Your task to perform on an android device: visit the assistant section in the google photos Image 0: 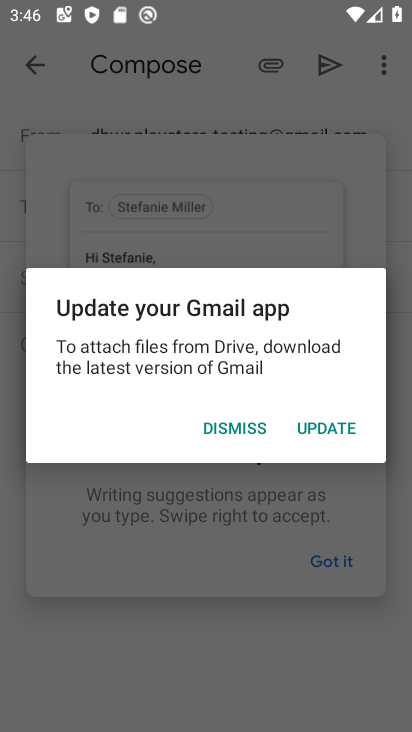
Step 0: press home button
Your task to perform on an android device: visit the assistant section in the google photos Image 1: 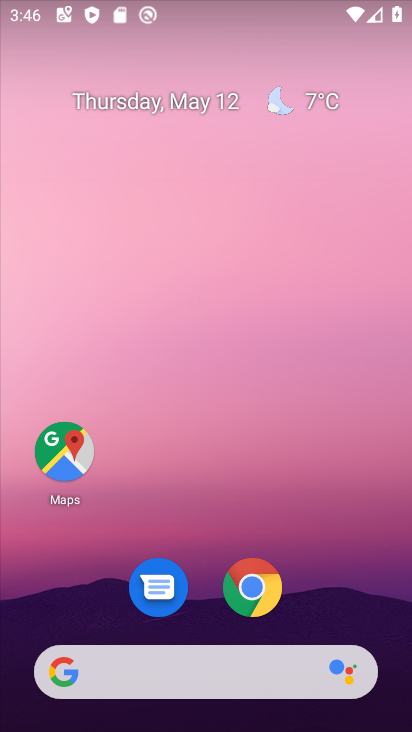
Step 1: drag from (241, 525) to (263, 177)
Your task to perform on an android device: visit the assistant section in the google photos Image 2: 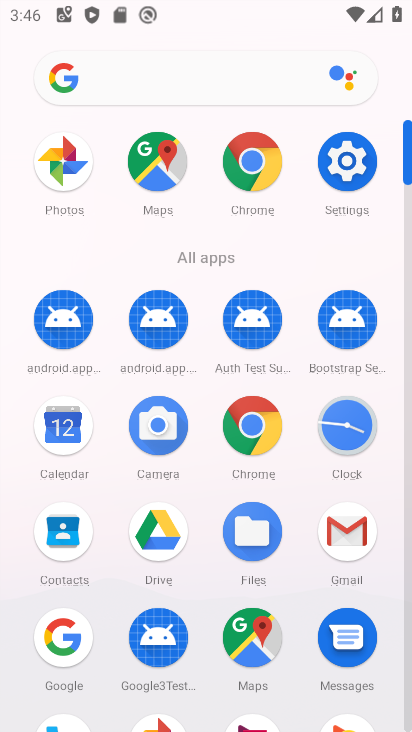
Step 2: click (67, 179)
Your task to perform on an android device: visit the assistant section in the google photos Image 3: 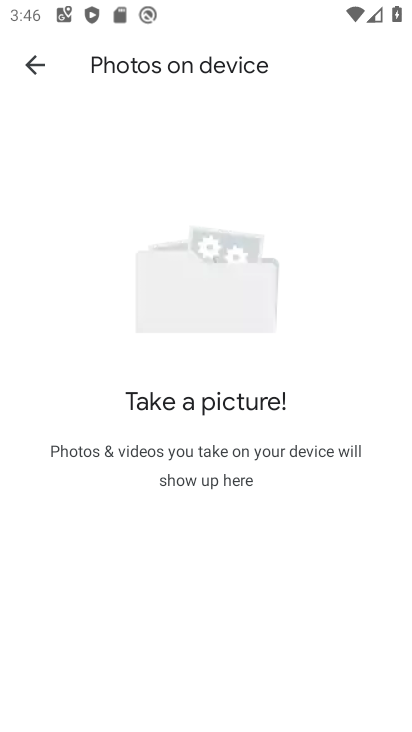
Step 3: press back button
Your task to perform on an android device: visit the assistant section in the google photos Image 4: 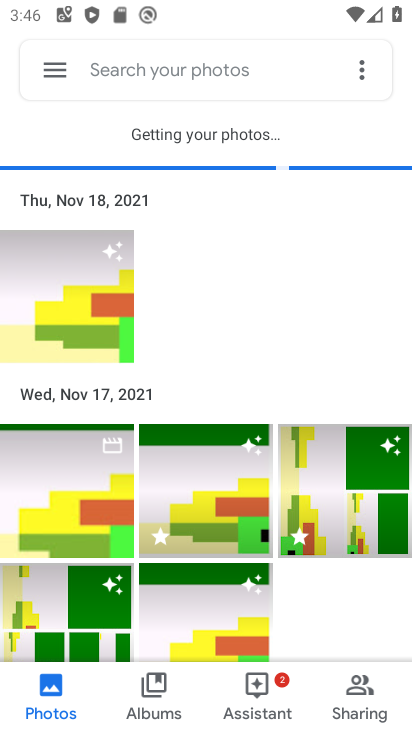
Step 4: click (280, 699)
Your task to perform on an android device: visit the assistant section in the google photos Image 5: 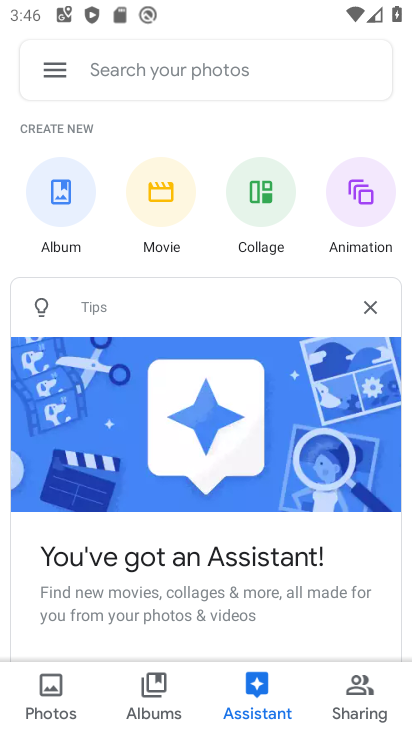
Step 5: task complete